Your task to perform on an android device: add a contact Image 0: 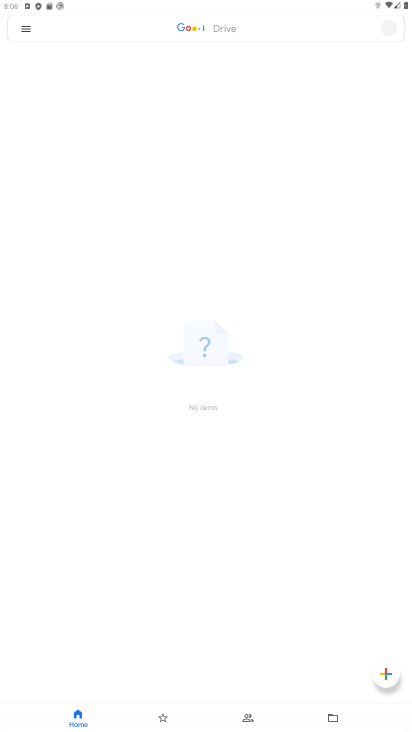
Step 0: click (218, 647)
Your task to perform on an android device: add a contact Image 1: 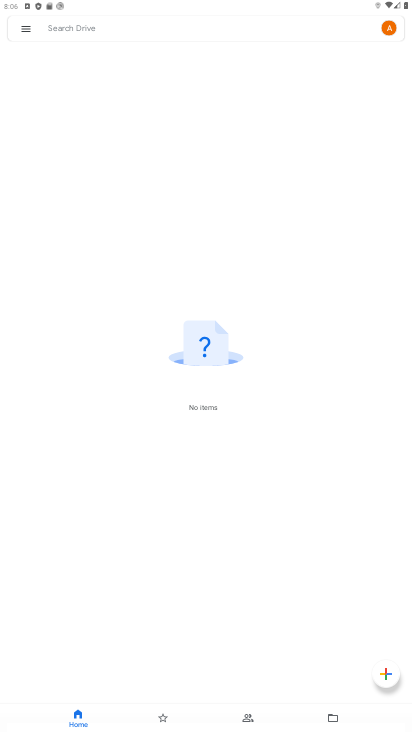
Step 1: press home button
Your task to perform on an android device: add a contact Image 2: 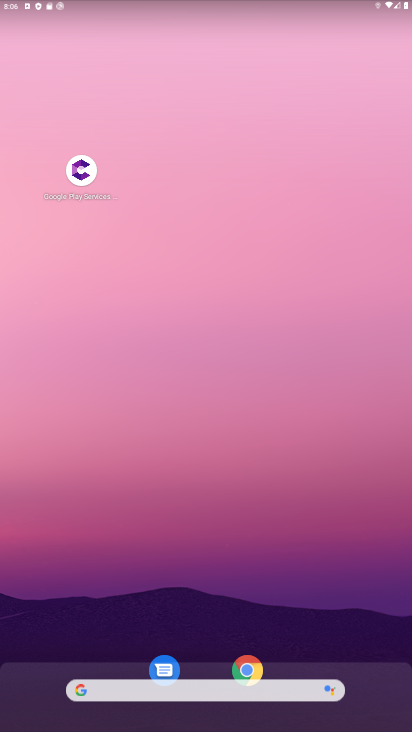
Step 2: drag from (200, 540) to (228, 106)
Your task to perform on an android device: add a contact Image 3: 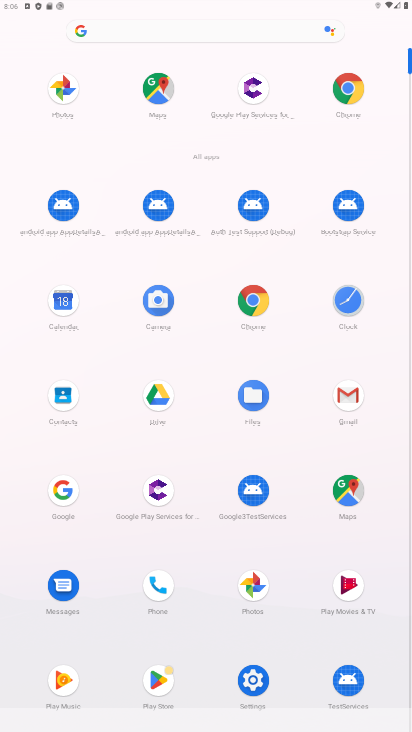
Step 3: click (66, 402)
Your task to perform on an android device: add a contact Image 4: 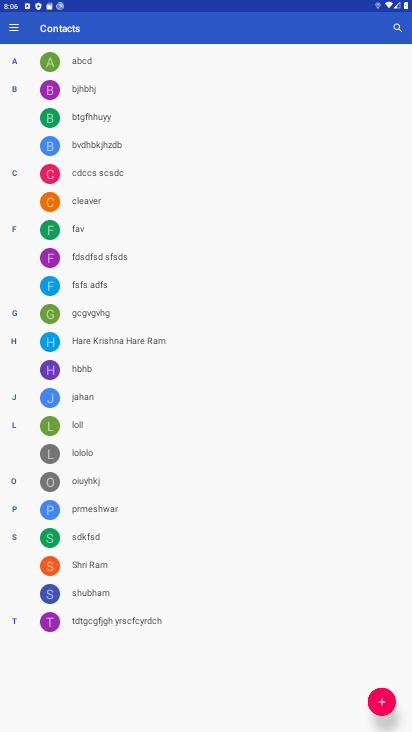
Step 4: click (387, 701)
Your task to perform on an android device: add a contact Image 5: 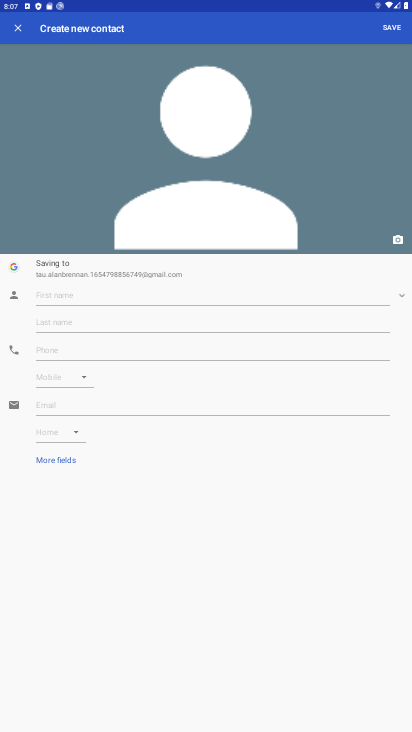
Step 5: click (164, 293)
Your task to perform on an android device: add a contact Image 6: 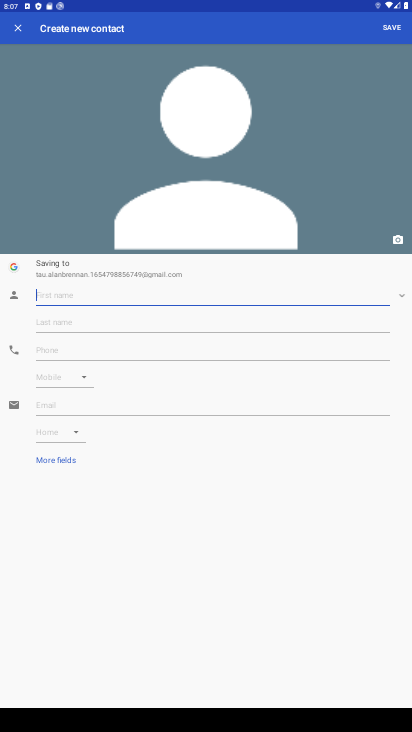
Step 6: type "Nazrool"
Your task to perform on an android device: add a contact Image 7: 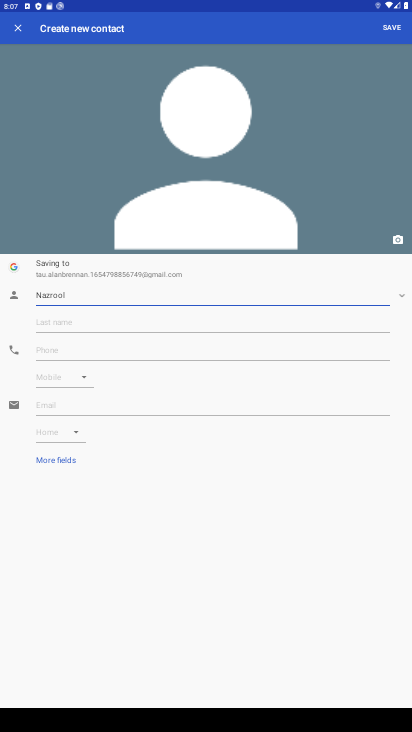
Step 7: click (171, 351)
Your task to perform on an android device: add a contact Image 8: 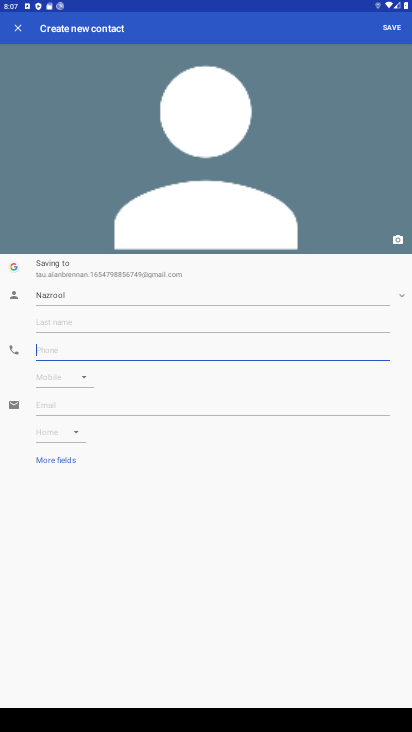
Step 8: type "9796678900"
Your task to perform on an android device: add a contact Image 9: 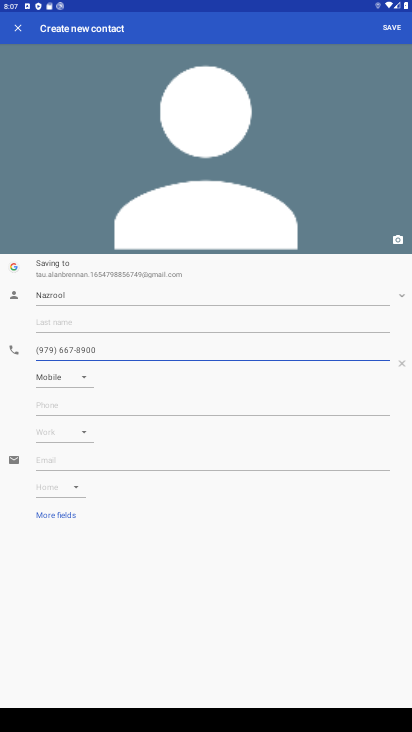
Step 9: click (389, 33)
Your task to perform on an android device: add a contact Image 10: 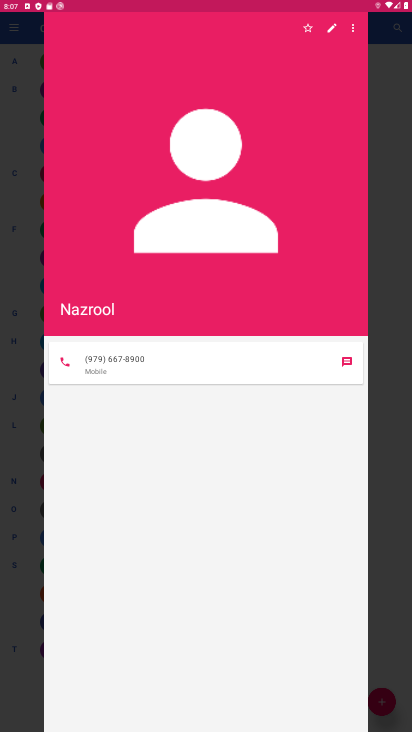
Step 10: task complete